Your task to perform on an android device: see sites visited before in the chrome app Image 0: 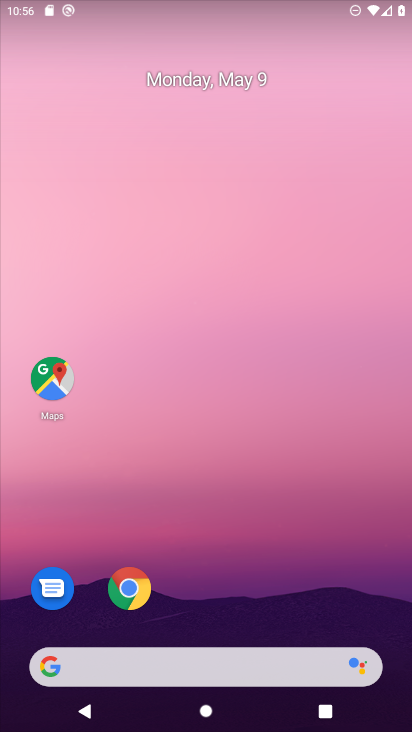
Step 0: click (146, 594)
Your task to perform on an android device: see sites visited before in the chrome app Image 1: 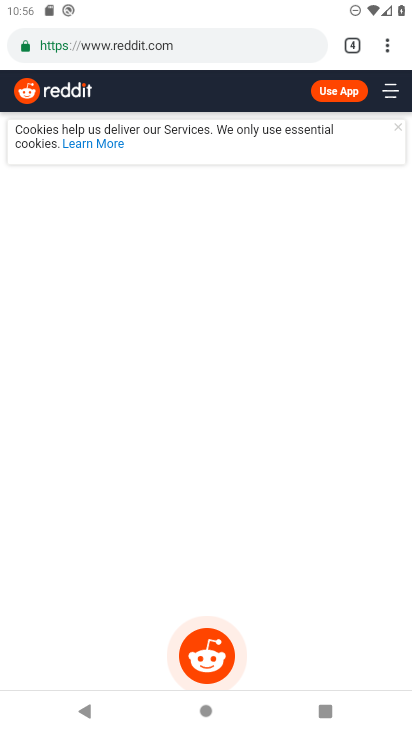
Step 1: click (386, 51)
Your task to perform on an android device: see sites visited before in the chrome app Image 2: 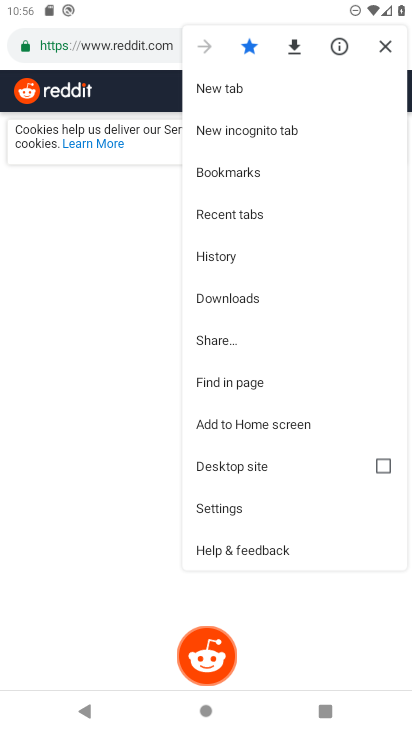
Step 2: click (272, 206)
Your task to perform on an android device: see sites visited before in the chrome app Image 3: 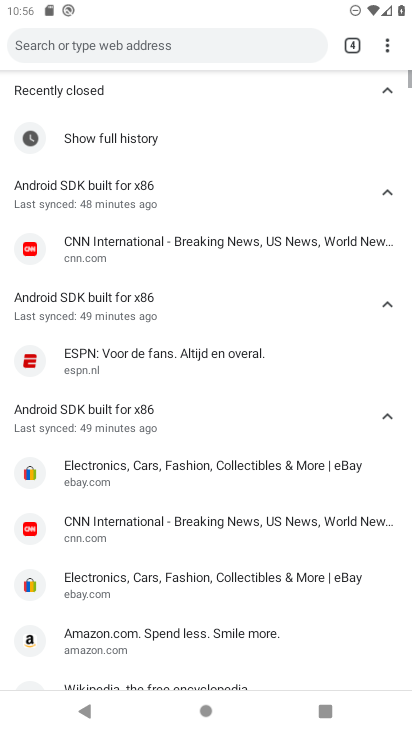
Step 3: task complete